Your task to perform on an android device: Go to display settings Image 0: 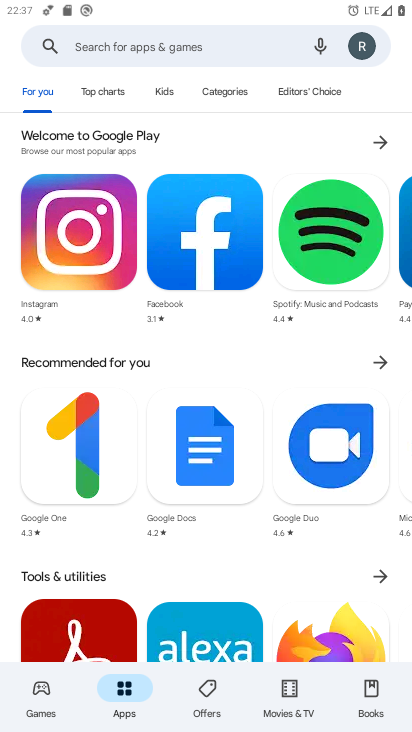
Step 0: press home button
Your task to perform on an android device: Go to display settings Image 1: 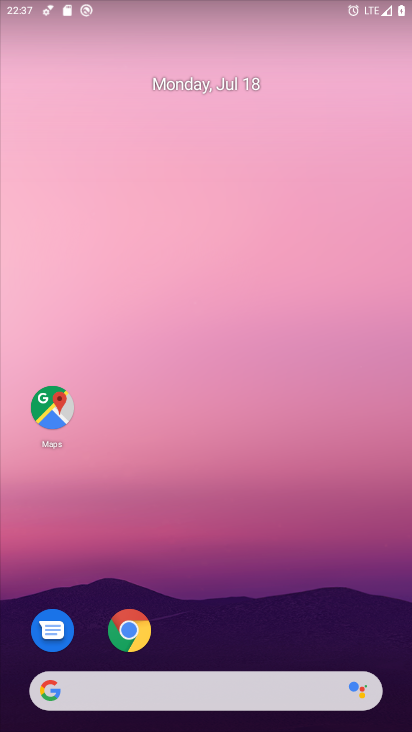
Step 1: drag from (218, 624) to (249, 138)
Your task to perform on an android device: Go to display settings Image 2: 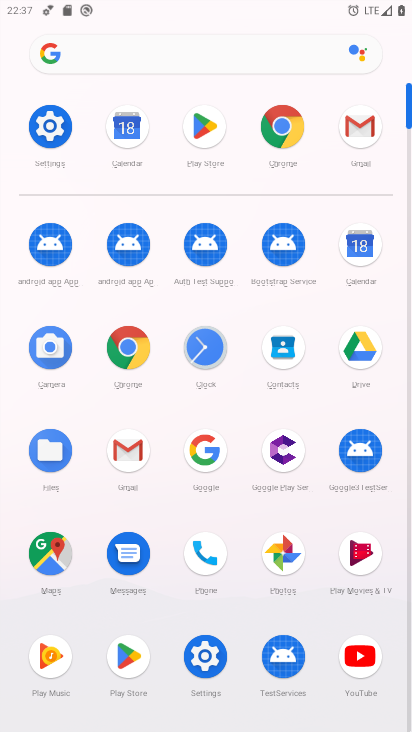
Step 2: click (50, 118)
Your task to perform on an android device: Go to display settings Image 3: 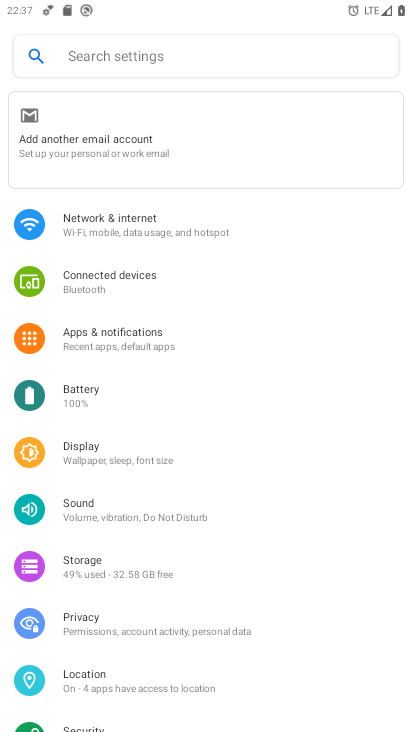
Step 3: click (101, 436)
Your task to perform on an android device: Go to display settings Image 4: 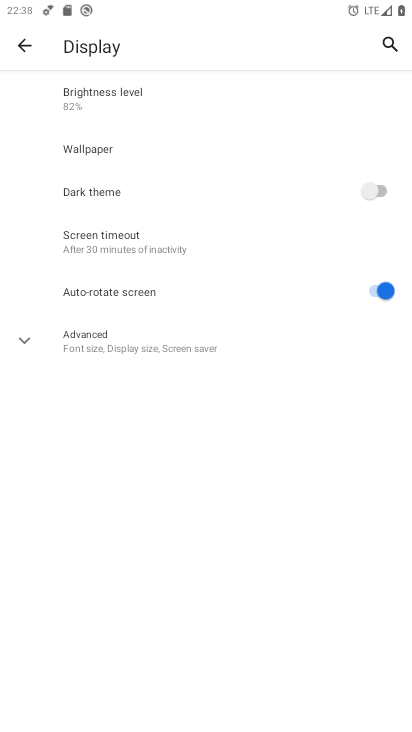
Step 4: task complete